Your task to perform on an android device: add a contact in the contacts app Image 0: 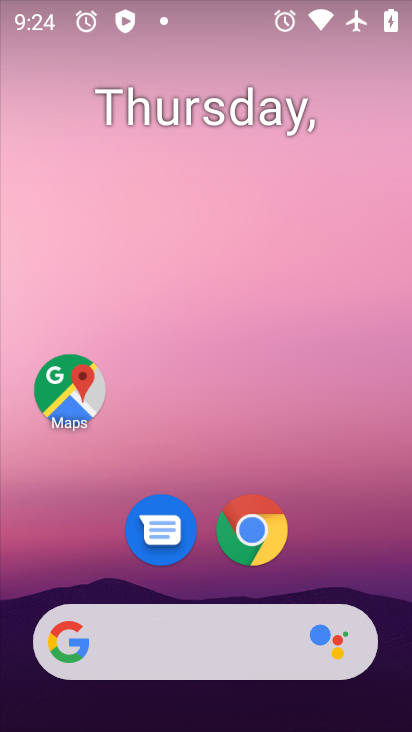
Step 0: drag from (321, 531) to (236, 56)
Your task to perform on an android device: add a contact in the contacts app Image 1: 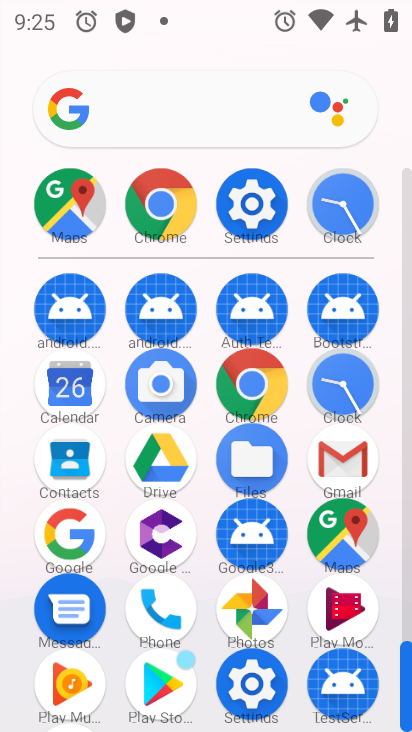
Step 1: drag from (6, 553) to (10, 243)
Your task to perform on an android device: add a contact in the contacts app Image 2: 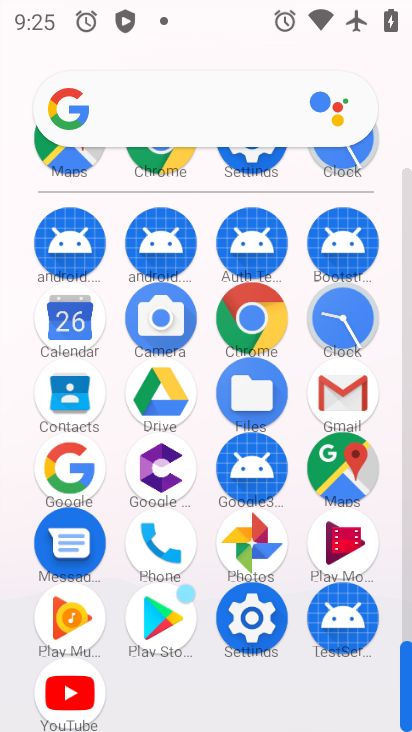
Step 2: drag from (2, 538) to (13, 254)
Your task to perform on an android device: add a contact in the contacts app Image 3: 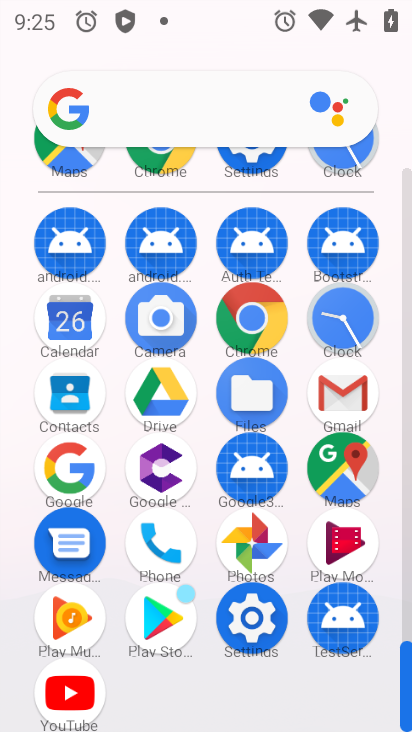
Step 3: drag from (8, 212) to (2, 621)
Your task to perform on an android device: add a contact in the contacts app Image 4: 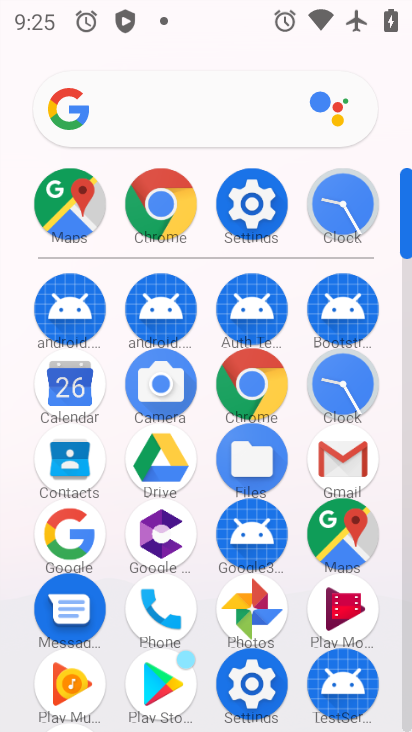
Step 4: click (63, 453)
Your task to perform on an android device: add a contact in the contacts app Image 5: 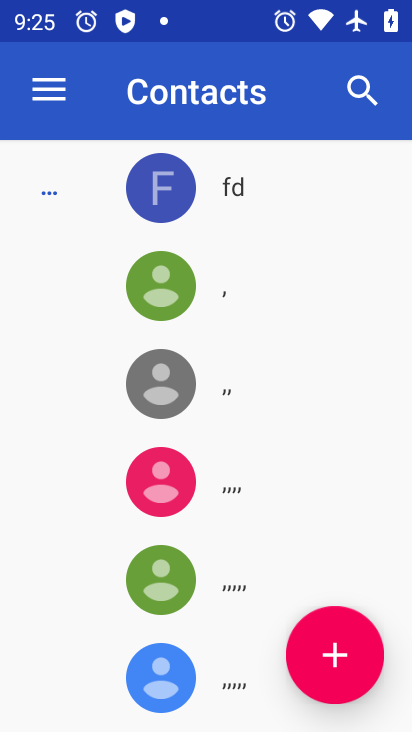
Step 5: task complete